Your task to perform on an android device: check data usage Image 0: 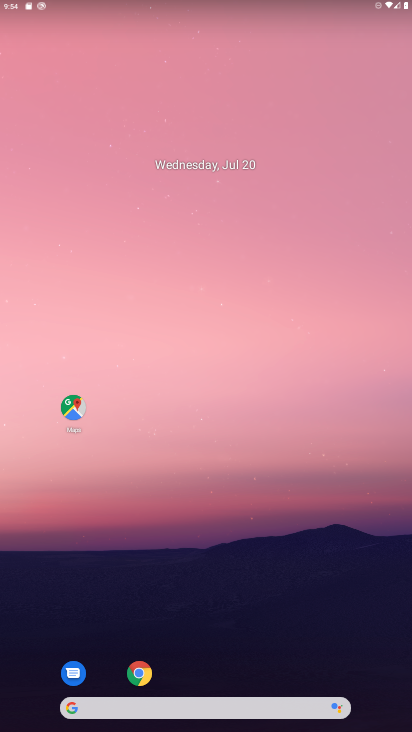
Step 0: drag from (200, 668) to (315, 6)
Your task to perform on an android device: check data usage Image 1: 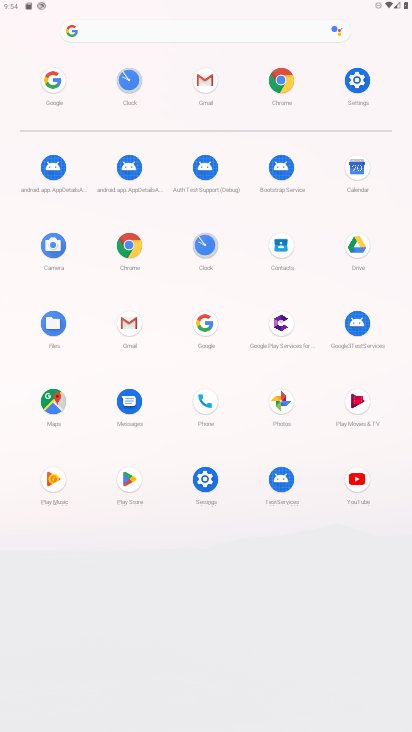
Step 1: click (209, 473)
Your task to perform on an android device: check data usage Image 2: 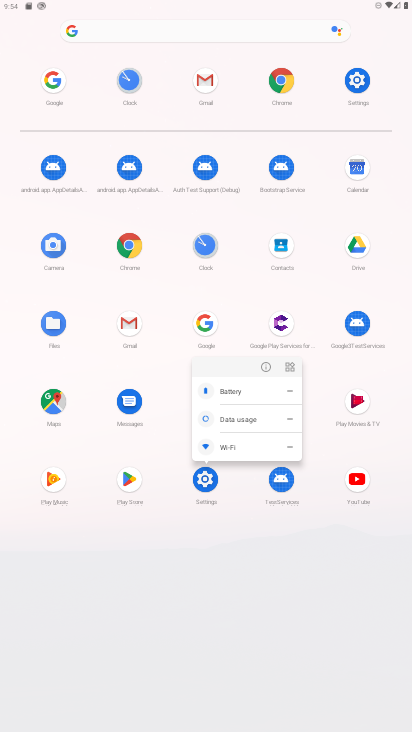
Step 2: click (267, 363)
Your task to perform on an android device: check data usage Image 3: 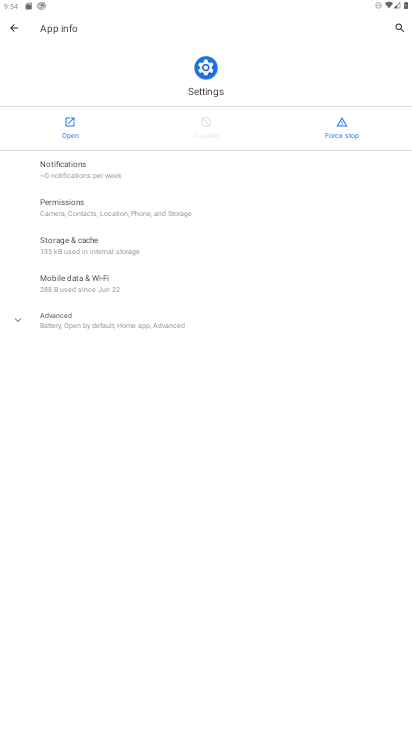
Step 3: click (66, 124)
Your task to perform on an android device: check data usage Image 4: 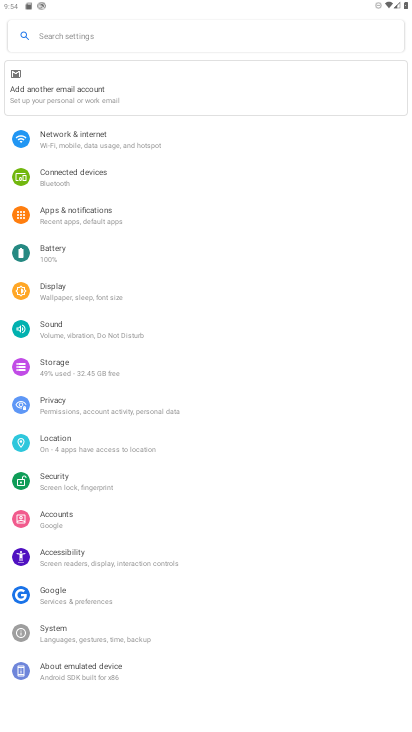
Step 4: click (97, 141)
Your task to perform on an android device: check data usage Image 5: 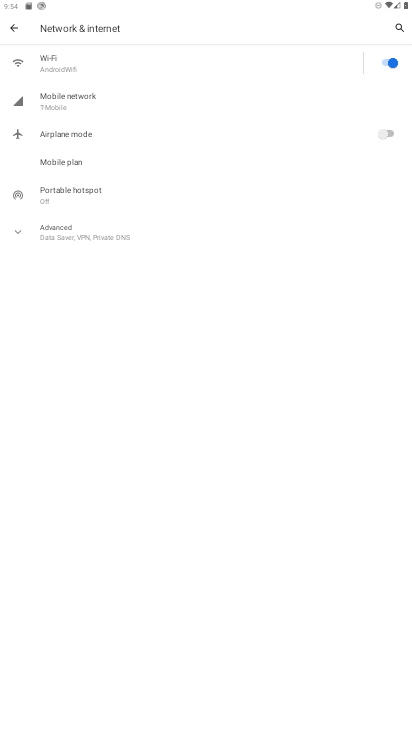
Step 5: click (142, 99)
Your task to perform on an android device: check data usage Image 6: 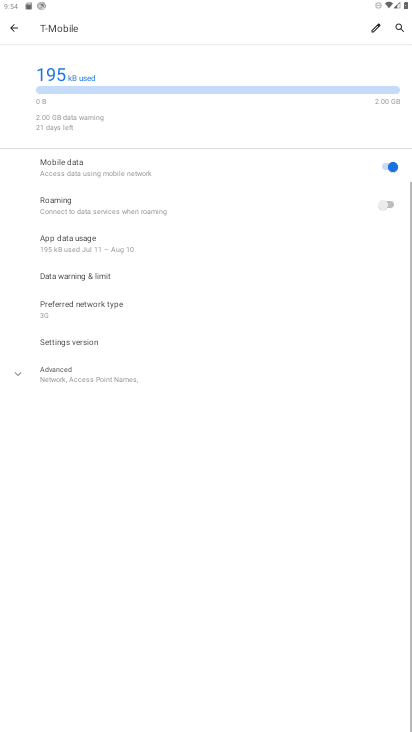
Step 6: task complete